Your task to perform on an android device: toggle show notifications on the lock screen Image 0: 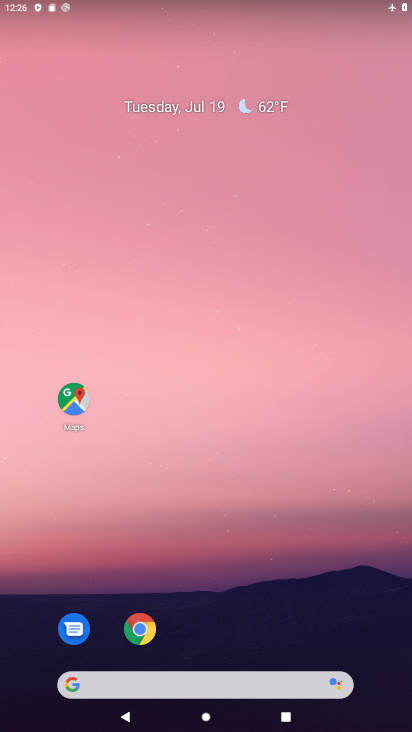
Step 0: drag from (221, 593) to (344, 1)
Your task to perform on an android device: toggle show notifications on the lock screen Image 1: 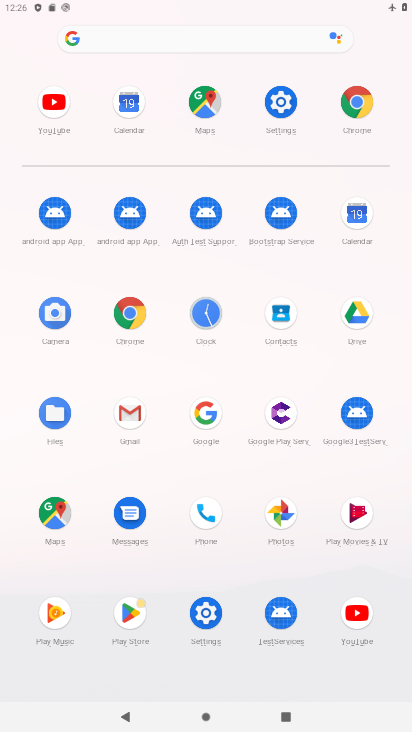
Step 1: click (207, 608)
Your task to perform on an android device: toggle show notifications on the lock screen Image 2: 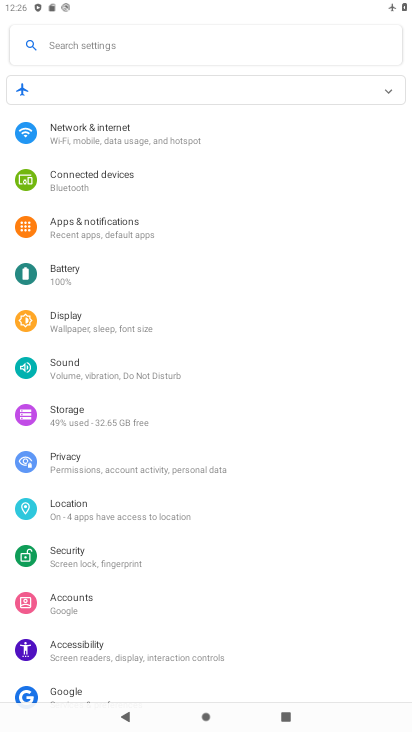
Step 2: click (113, 225)
Your task to perform on an android device: toggle show notifications on the lock screen Image 3: 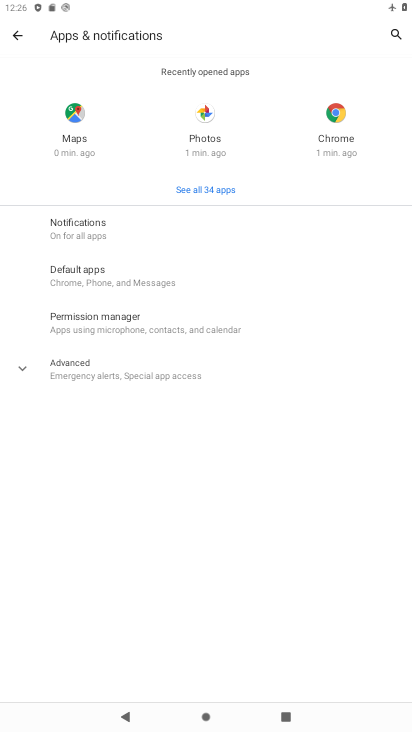
Step 3: click (114, 231)
Your task to perform on an android device: toggle show notifications on the lock screen Image 4: 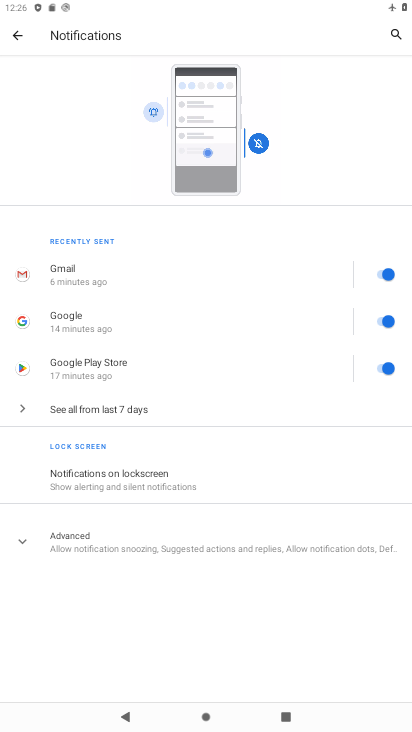
Step 4: click (146, 481)
Your task to perform on an android device: toggle show notifications on the lock screen Image 5: 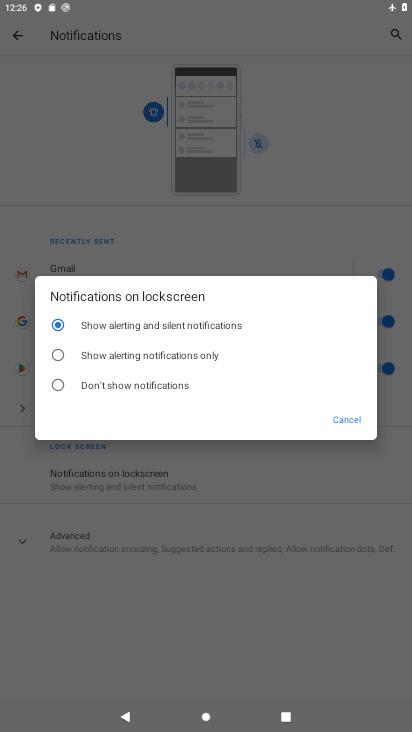
Step 5: click (153, 327)
Your task to perform on an android device: toggle show notifications on the lock screen Image 6: 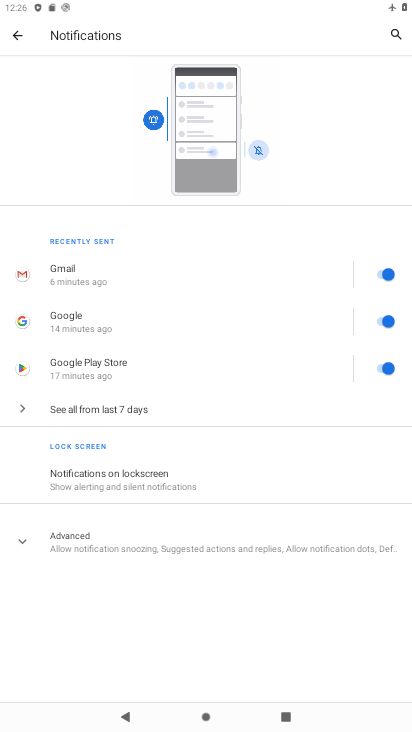
Step 6: task complete